Your task to perform on an android device: choose inbox layout in the gmail app Image 0: 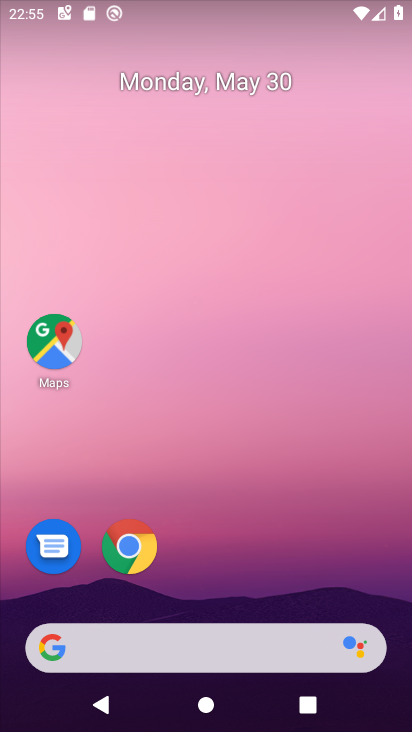
Step 0: drag from (180, 584) to (266, 17)
Your task to perform on an android device: choose inbox layout in the gmail app Image 1: 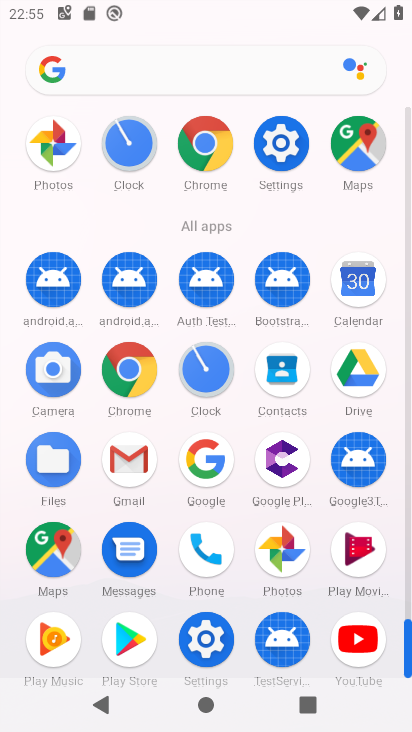
Step 1: click (138, 474)
Your task to perform on an android device: choose inbox layout in the gmail app Image 2: 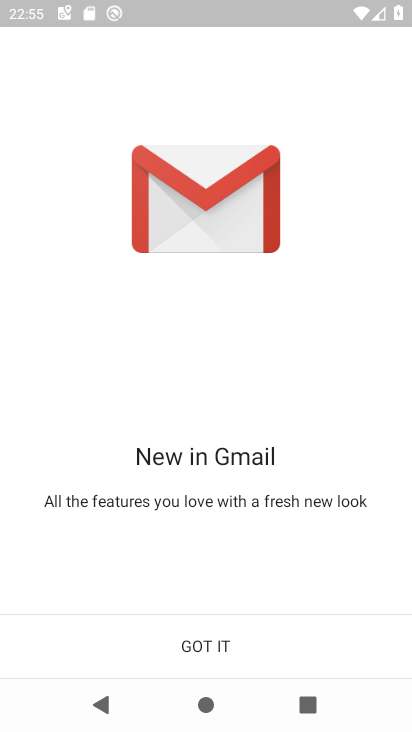
Step 2: click (216, 654)
Your task to perform on an android device: choose inbox layout in the gmail app Image 3: 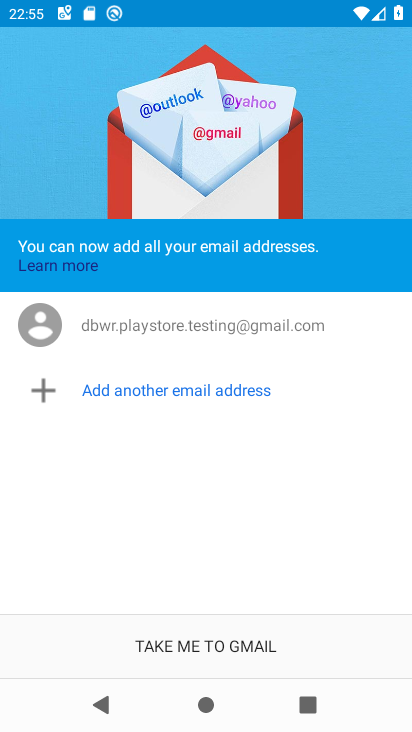
Step 3: click (229, 648)
Your task to perform on an android device: choose inbox layout in the gmail app Image 4: 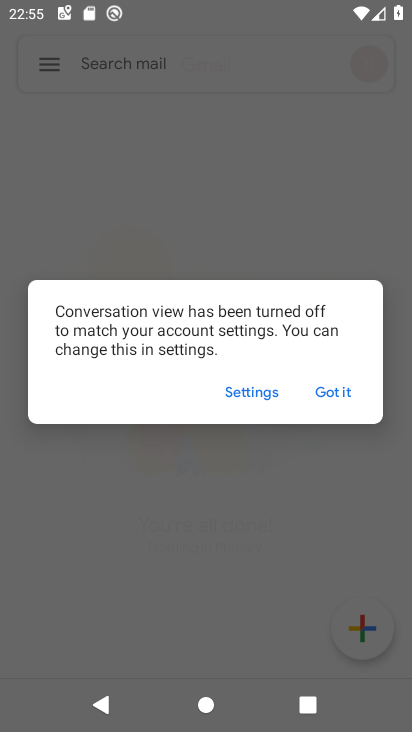
Step 4: click (246, 388)
Your task to perform on an android device: choose inbox layout in the gmail app Image 5: 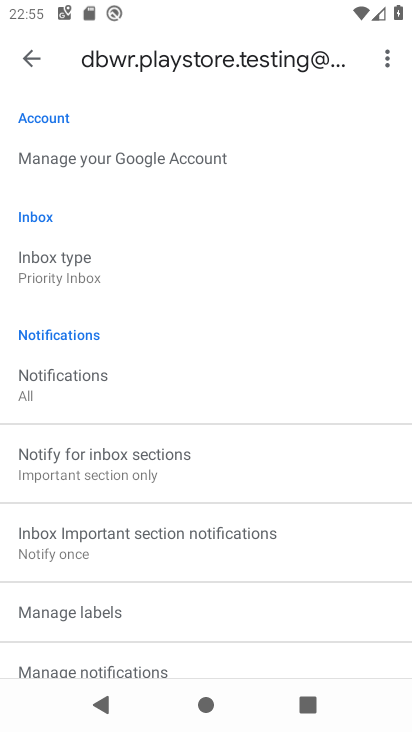
Step 5: click (69, 259)
Your task to perform on an android device: choose inbox layout in the gmail app Image 6: 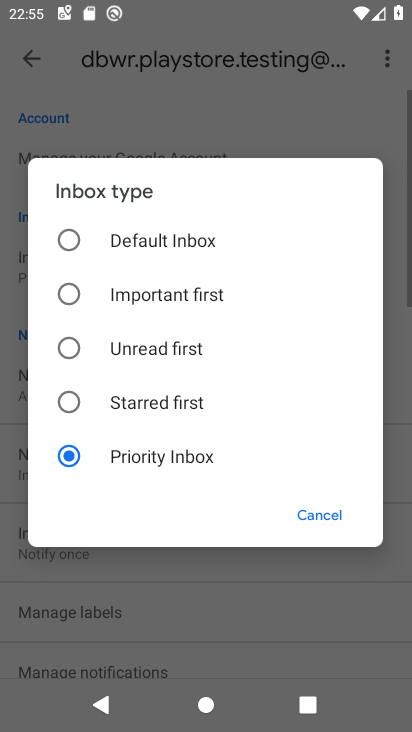
Step 6: click (142, 234)
Your task to perform on an android device: choose inbox layout in the gmail app Image 7: 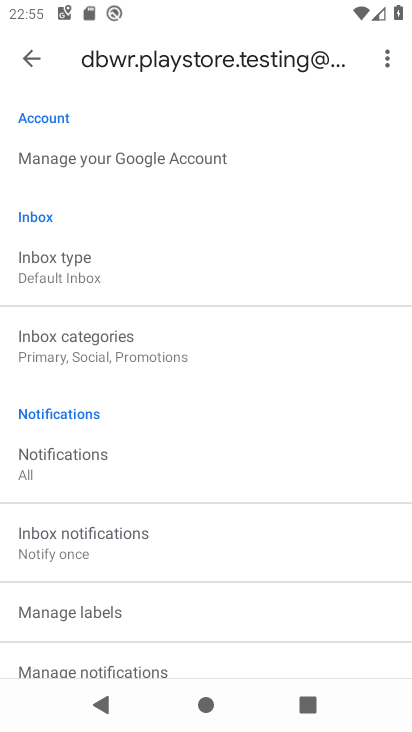
Step 7: task complete